Your task to perform on an android device: turn off airplane mode Image 0: 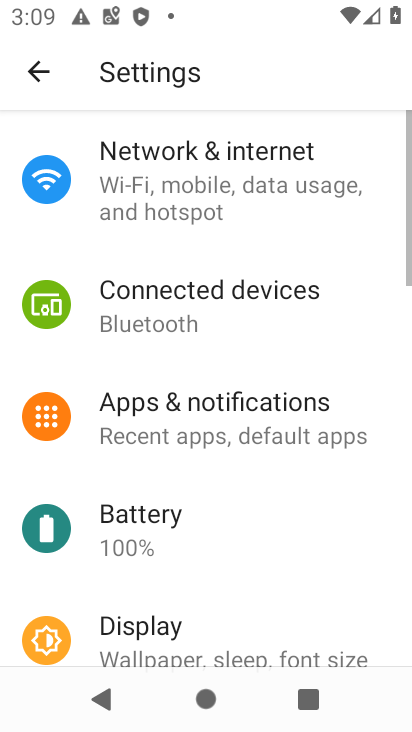
Step 0: press home button
Your task to perform on an android device: turn off airplane mode Image 1: 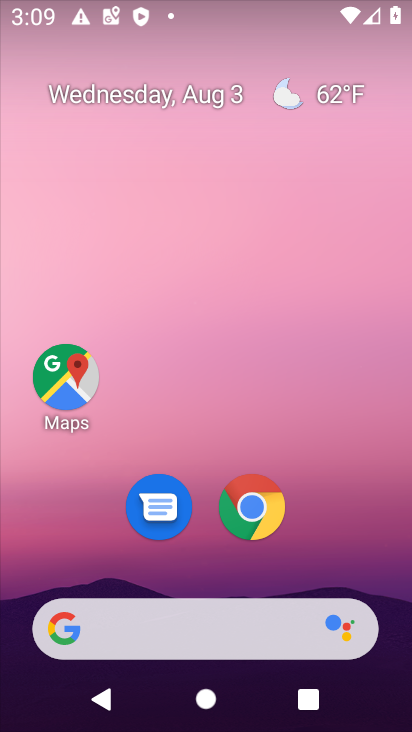
Step 1: drag from (347, 582) to (149, 41)
Your task to perform on an android device: turn off airplane mode Image 2: 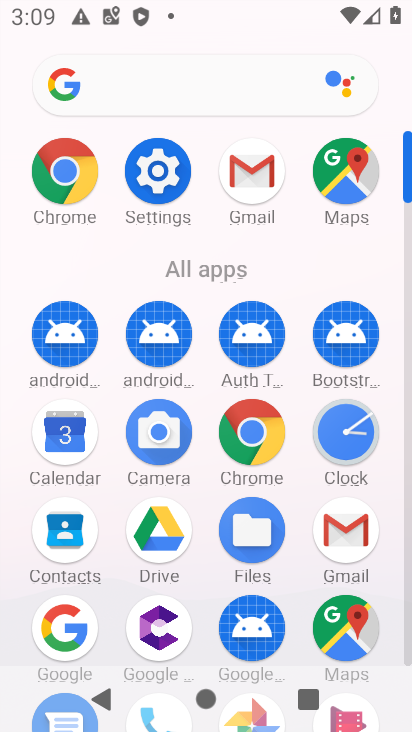
Step 2: click (171, 146)
Your task to perform on an android device: turn off airplane mode Image 3: 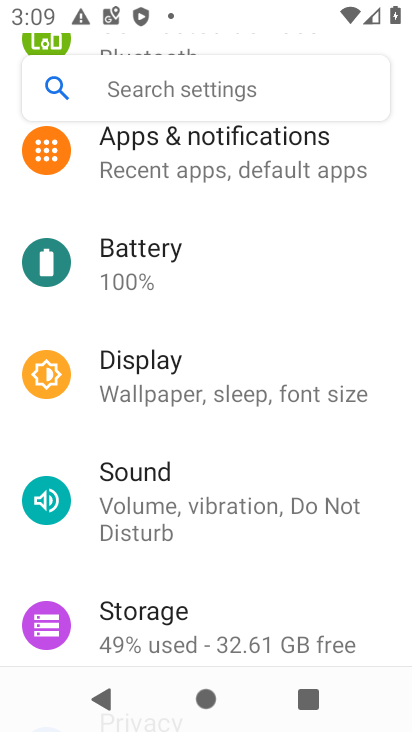
Step 3: drag from (170, 147) to (199, 509)
Your task to perform on an android device: turn off airplane mode Image 4: 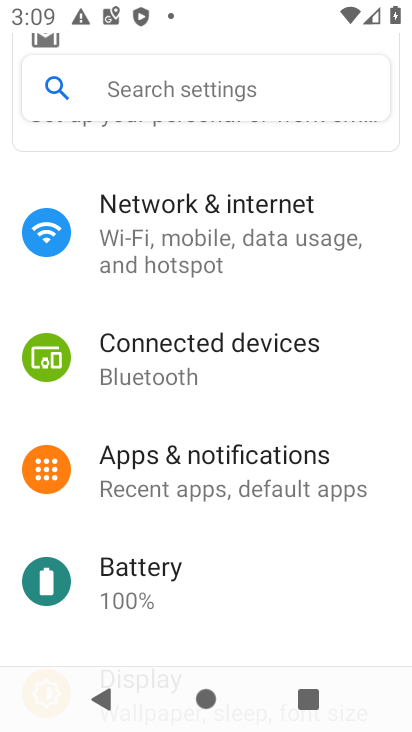
Step 4: click (268, 227)
Your task to perform on an android device: turn off airplane mode Image 5: 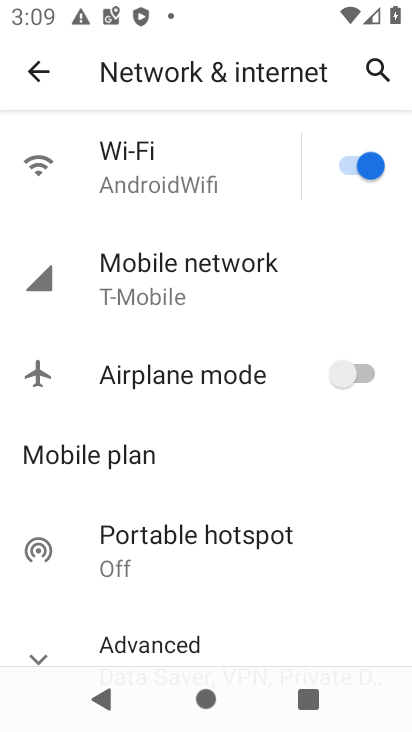
Step 5: task complete